Your task to perform on an android device: snooze an email in the gmail app Image 0: 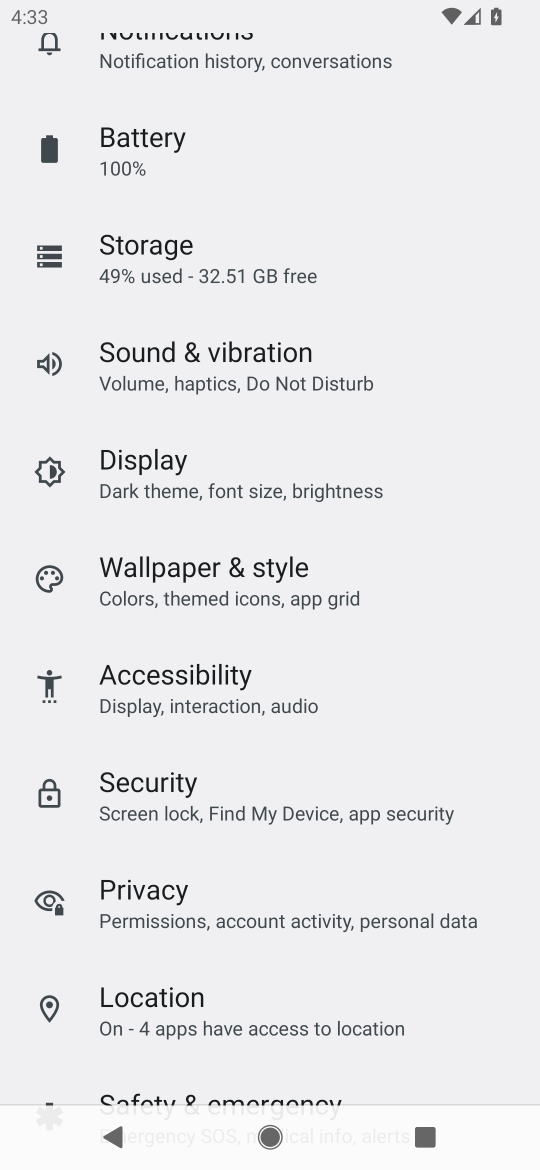
Step 0: press home button
Your task to perform on an android device: snooze an email in the gmail app Image 1: 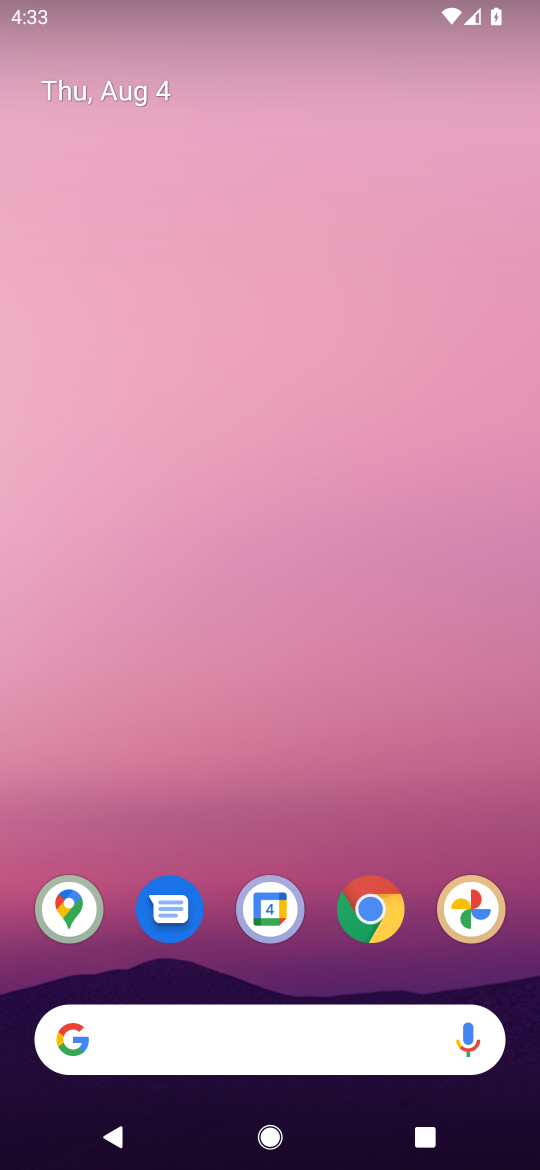
Step 1: drag from (340, 844) to (333, 148)
Your task to perform on an android device: snooze an email in the gmail app Image 2: 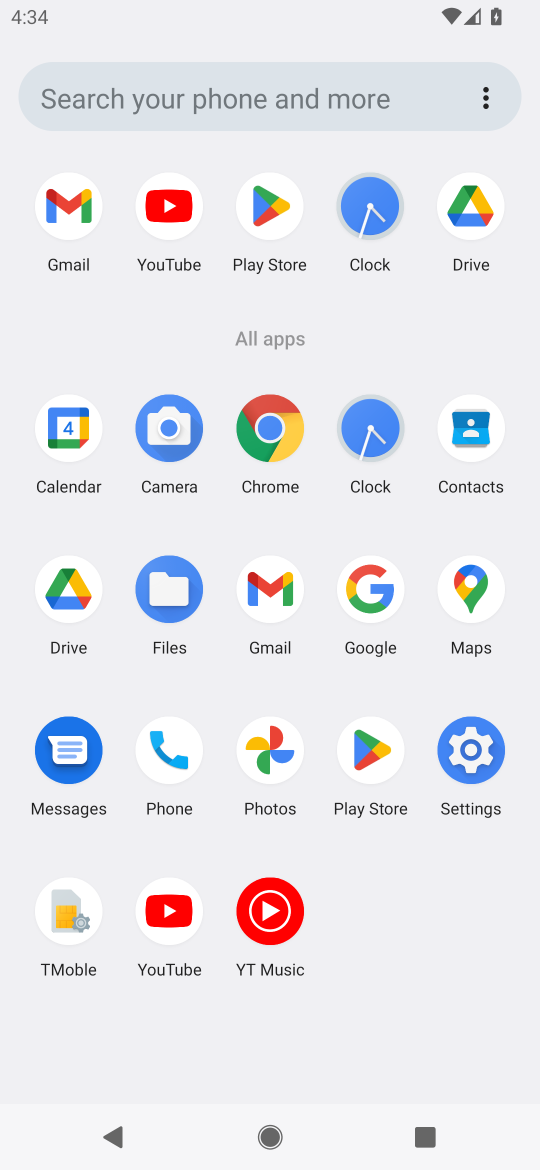
Step 2: click (269, 585)
Your task to perform on an android device: snooze an email in the gmail app Image 3: 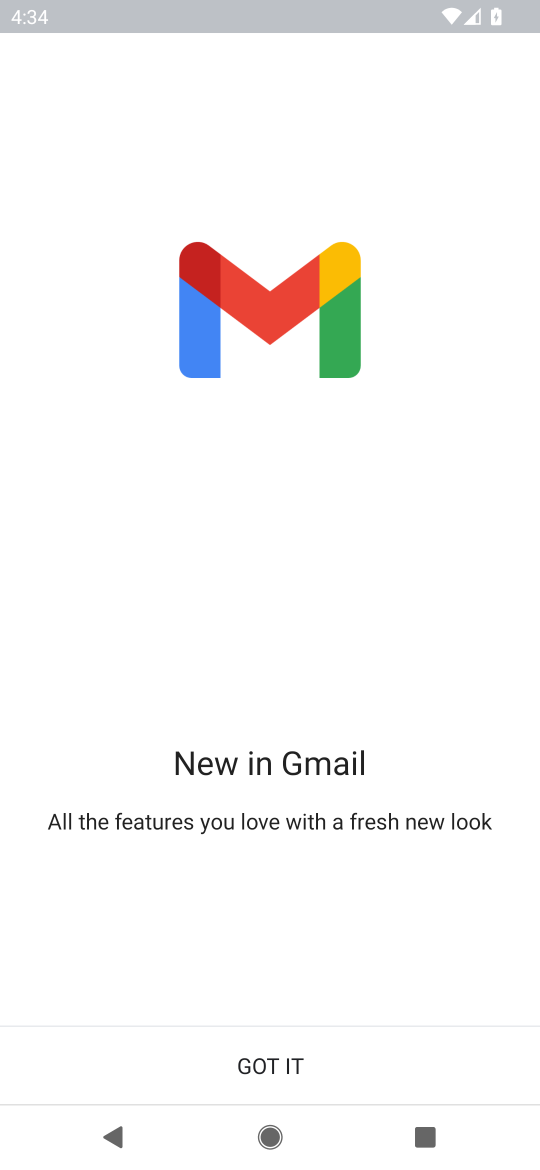
Step 3: click (280, 1077)
Your task to perform on an android device: snooze an email in the gmail app Image 4: 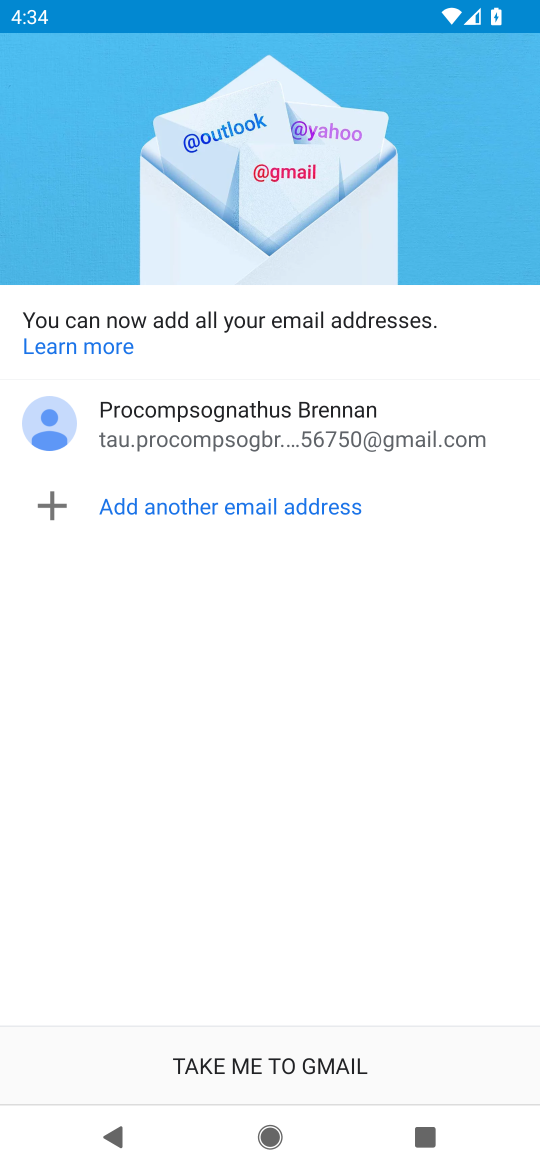
Step 4: click (283, 1071)
Your task to perform on an android device: snooze an email in the gmail app Image 5: 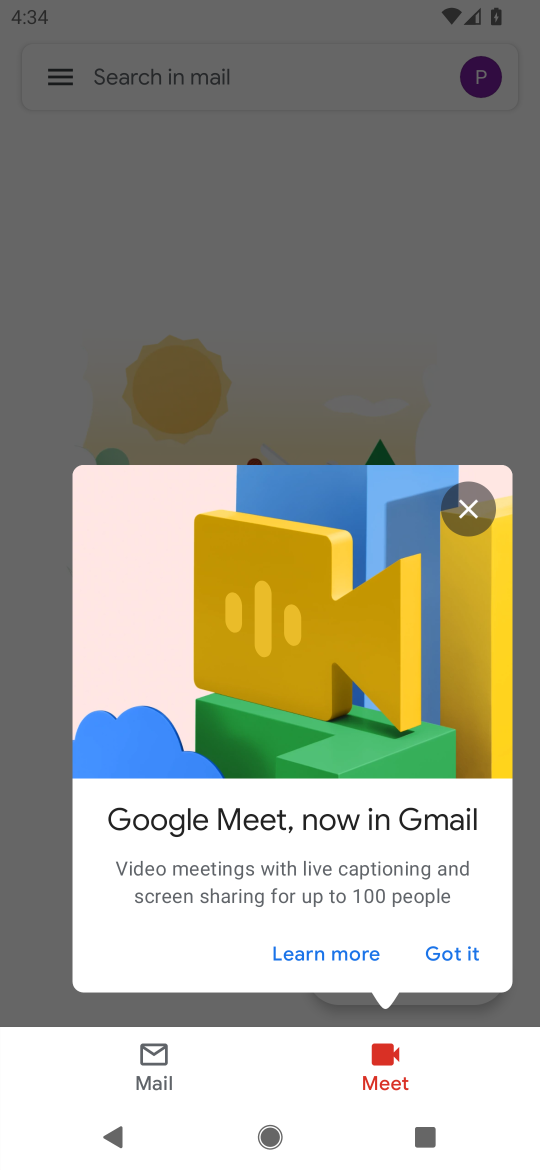
Step 5: click (456, 947)
Your task to perform on an android device: snooze an email in the gmail app Image 6: 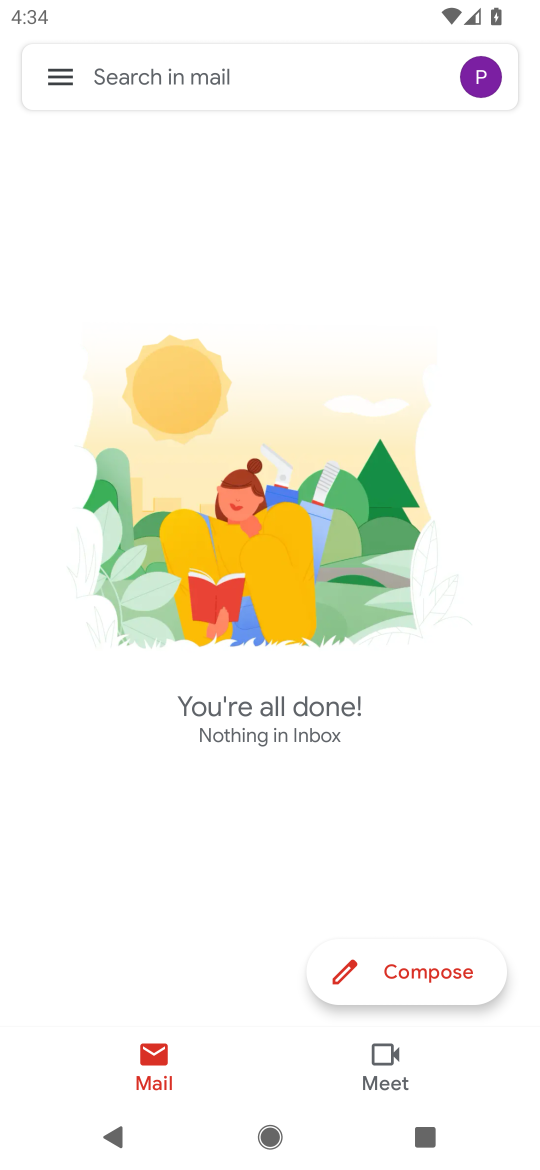
Step 6: click (75, 74)
Your task to perform on an android device: snooze an email in the gmail app Image 7: 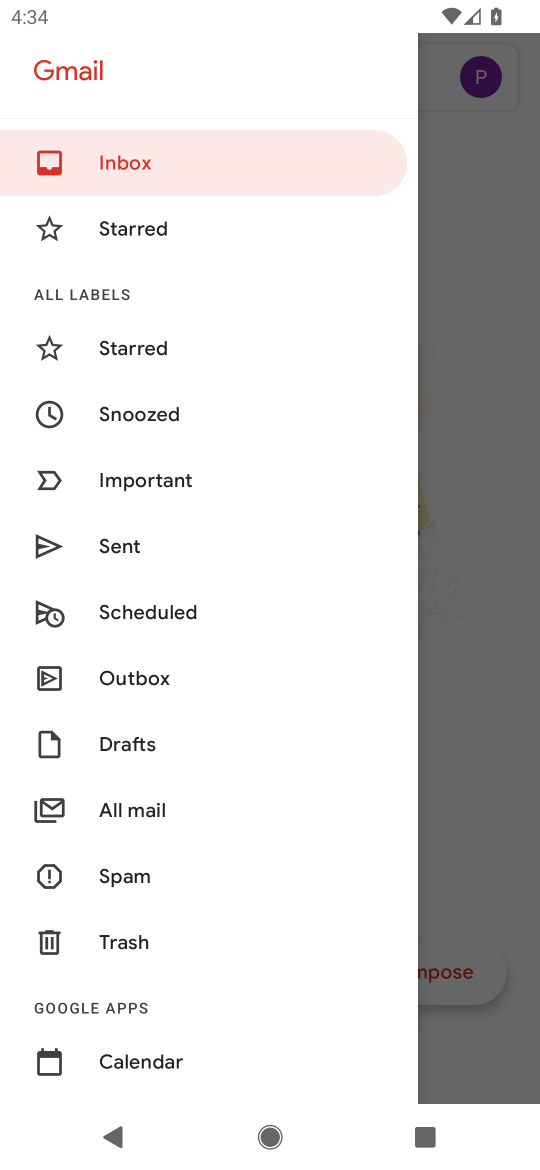
Step 7: click (149, 790)
Your task to perform on an android device: snooze an email in the gmail app Image 8: 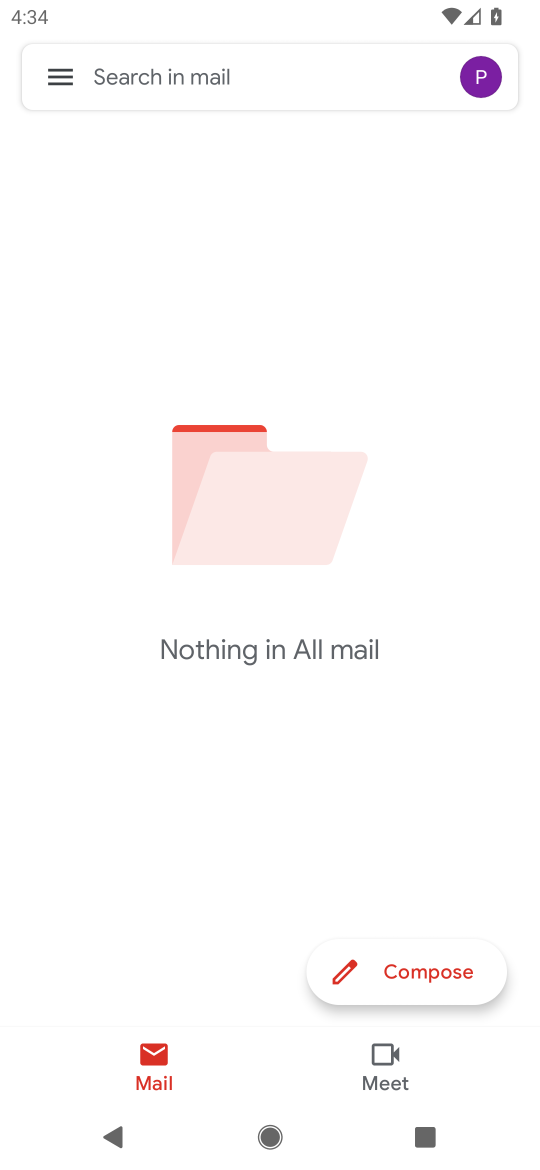
Step 8: task complete